Your task to perform on an android device: install app "Viber Messenger" Image 0: 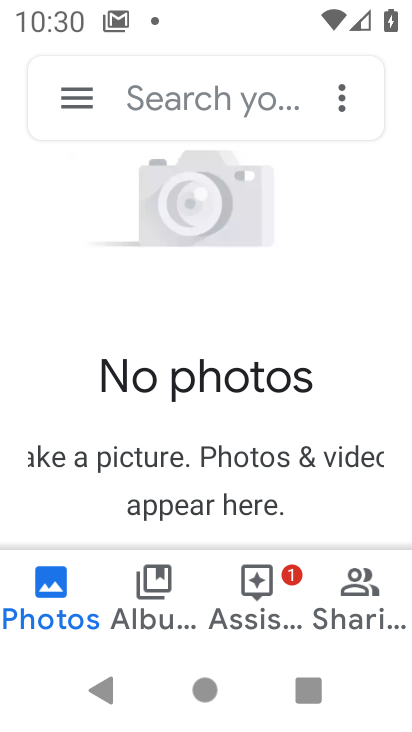
Step 0: press home button
Your task to perform on an android device: install app "Viber Messenger" Image 1: 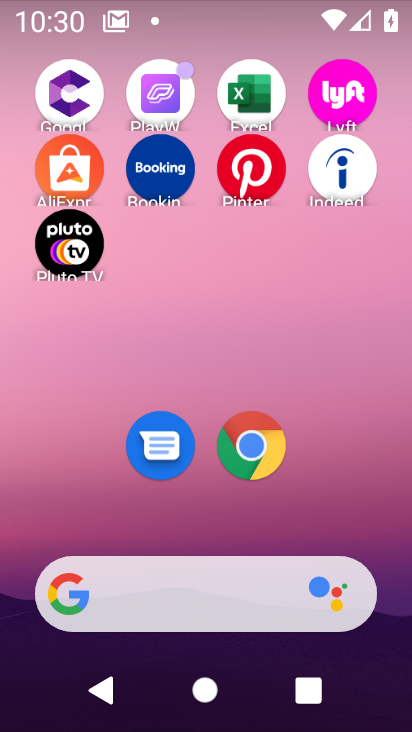
Step 1: drag from (205, 625) to (217, 132)
Your task to perform on an android device: install app "Viber Messenger" Image 2: 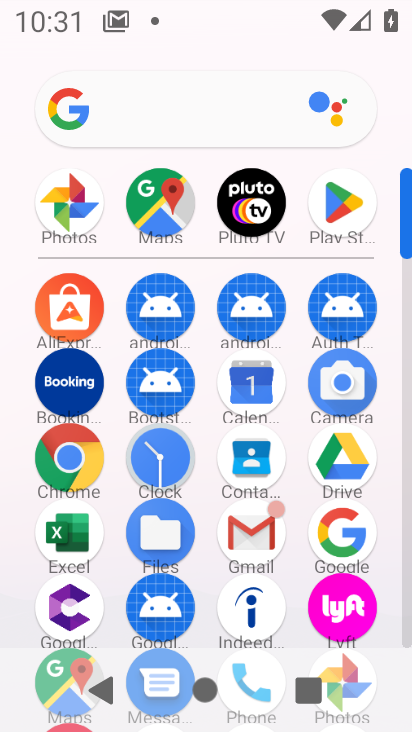
Step 2: click (341, 219)
Your task to perform on an android device: install app "Viber Messenger" Image 3: 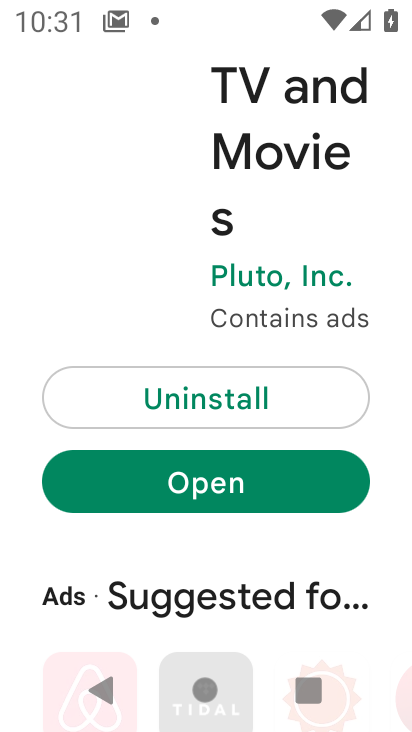
Step 3: drag from (198, 273) to (150, 729)
Your task to perform on an android device: install app "Viber Messenger" Image 4: 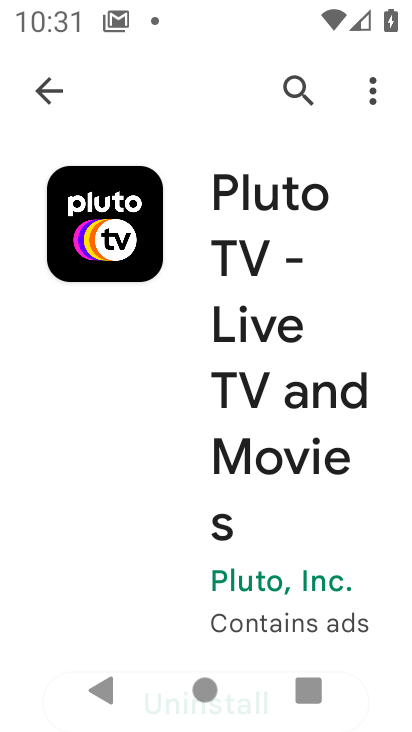
Step 4: click (48, 77)
Your task to perform on an android device: install app "Viber Messenger" Image 5: 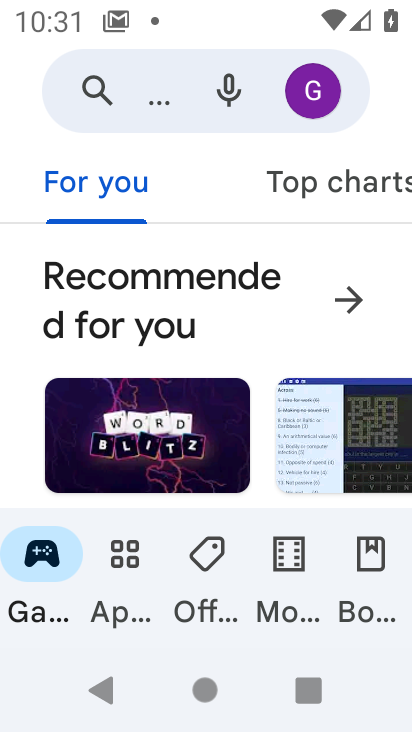
Step 5: click (80, 92)
Your task to perform on an android device: install app "Viber Messenger" Image 6: 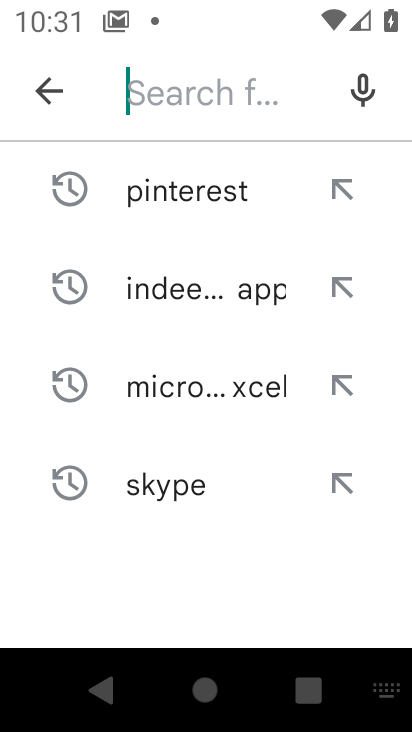
Step 6: type "Viber Messenger"
Your task to perform on an android device: install app "Viber Messenger" Image 7: 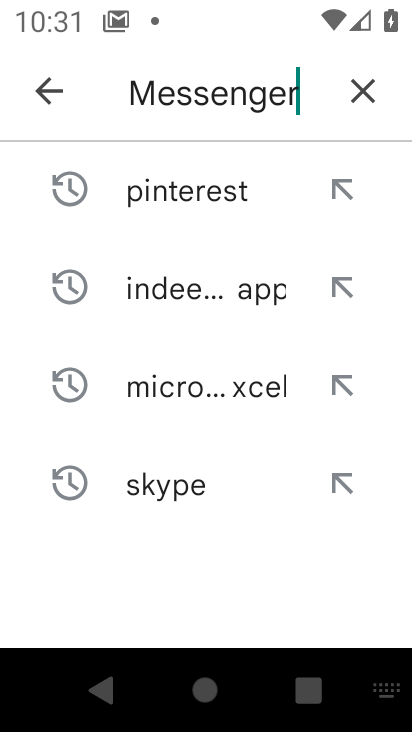
Step 7: type ""
Your task to perform on an android device: install app "Viber Messenger" Image 8: 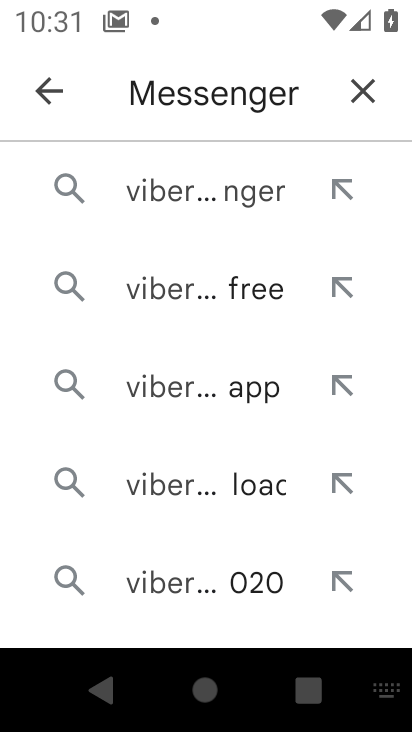
Step 8: click (240, 187)
Your task to perform on an android device: install app "Viber Messenger" Image 9: 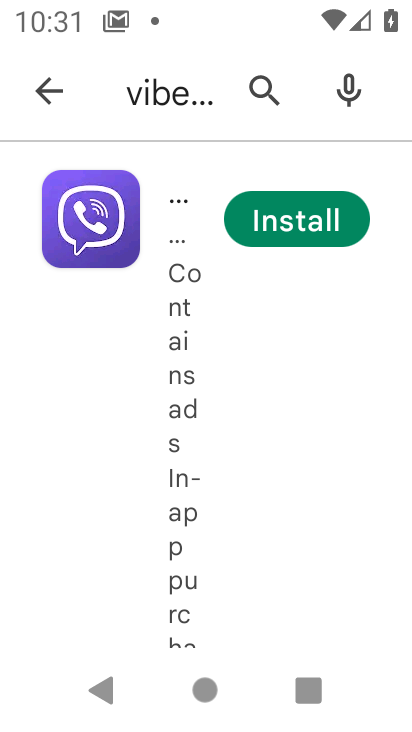
Step 9: click (266, 235)
Your task to perform on an android device: install app "Viber Messenger" Image 10: 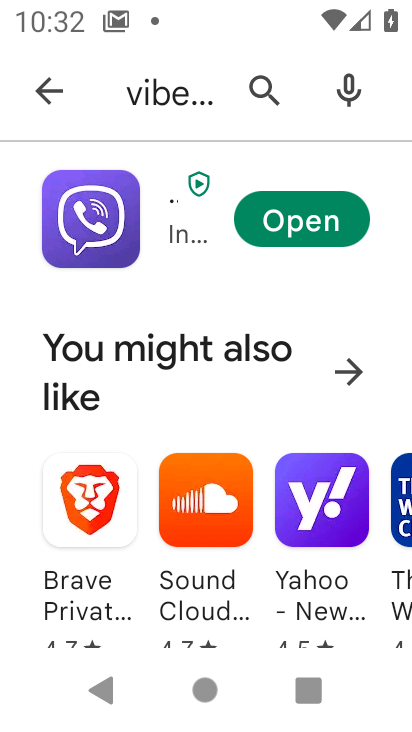
Step 10: task complete